Your task to perform on an android device: change the clock style Image 0: 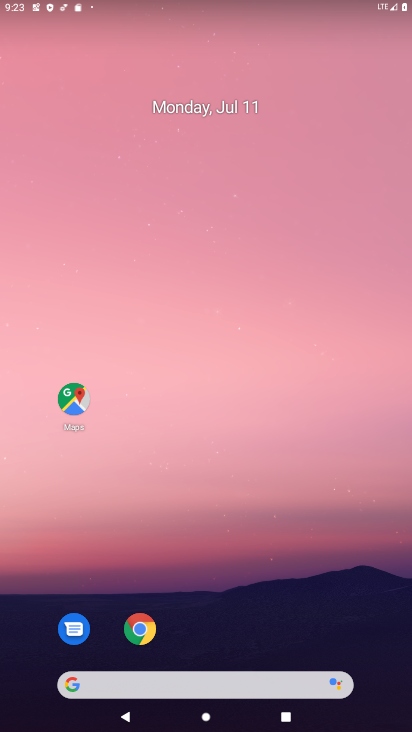
Step 0: click (121, 672)
Your task to perform on an android device: change the clock style Image 1: 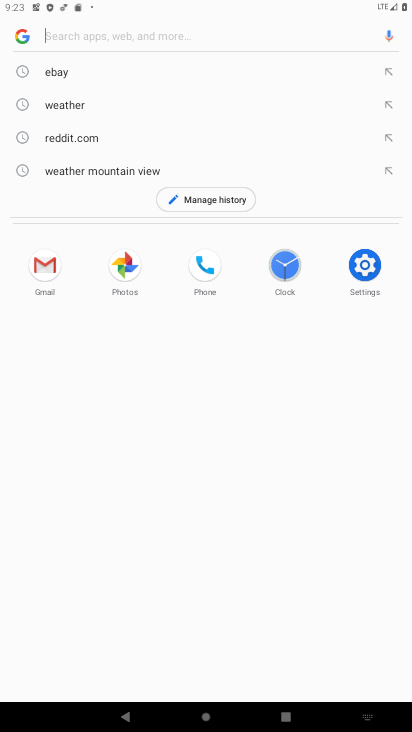
Step 1: press home button
Your task to perform on an android device: change the clock style Image 2: 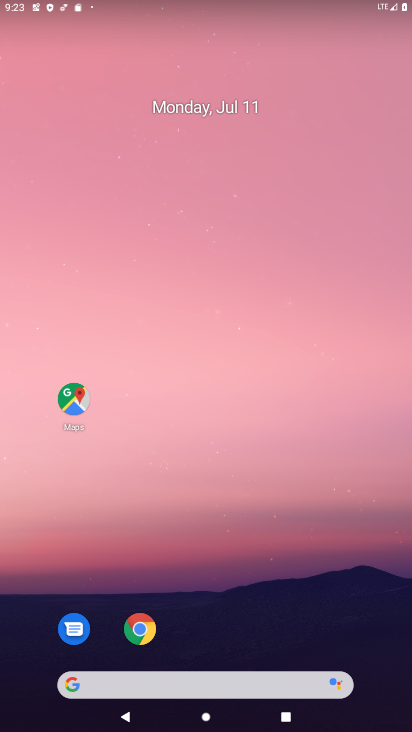
Step 2: drag from (5, 728) to (289, 83)
Your task to perform on an android device: change the clock style Image 3: 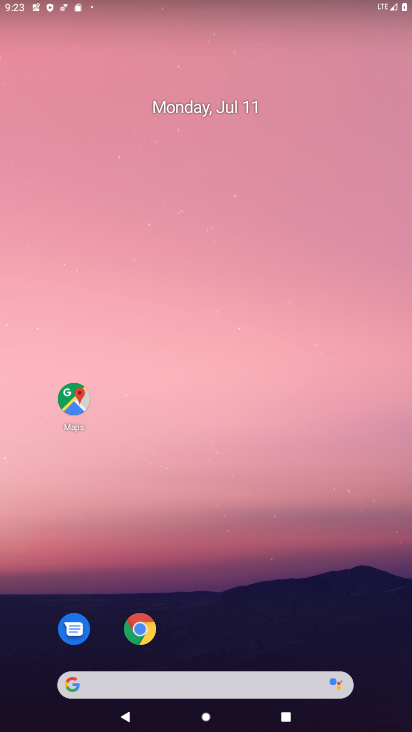
Step 3: drag from (28, 701) to (200, 15)
Your task to perform on an android device: change the clock style Image 4: 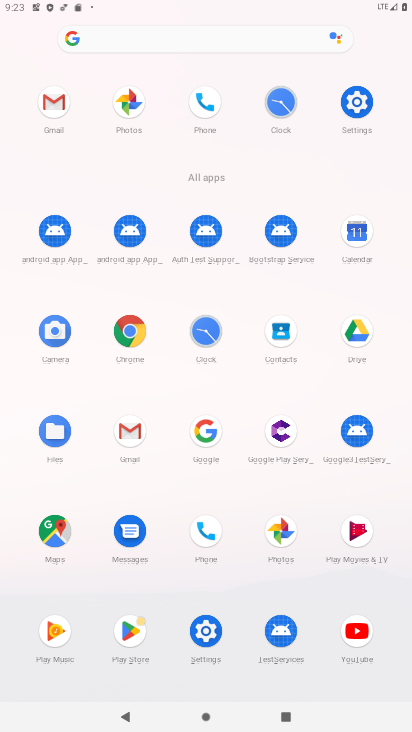
Step 4: click (203, 341)
Your task to perform on an android device: change the clock style Image 5: 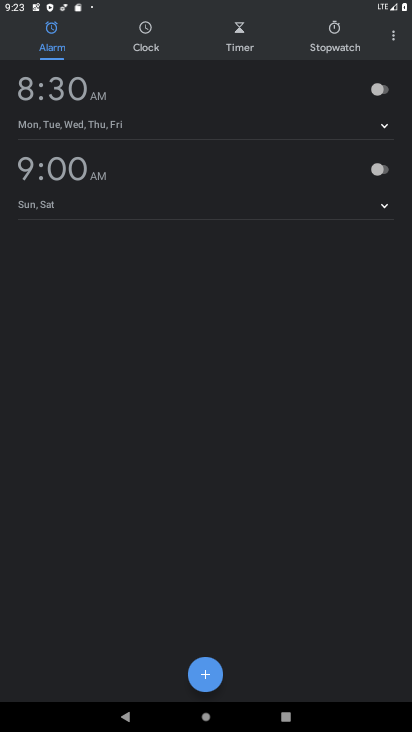
Step 5: click (140, 41)
Your task to perform on an android device: change the clock style Image 6: 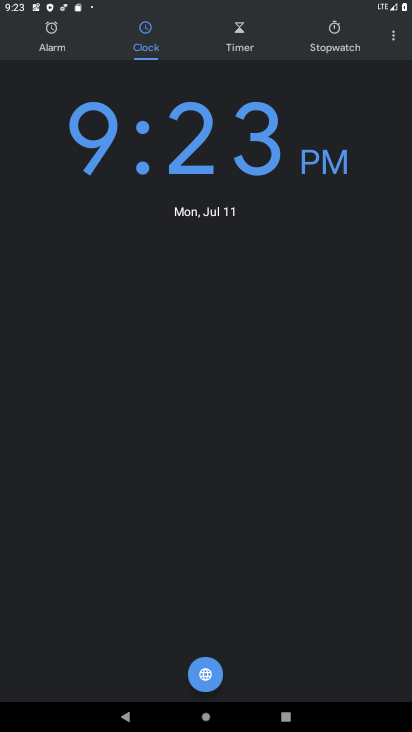
Step 6: click (391, 37)
Your task to perform on an android device: change the clock style Image 7: 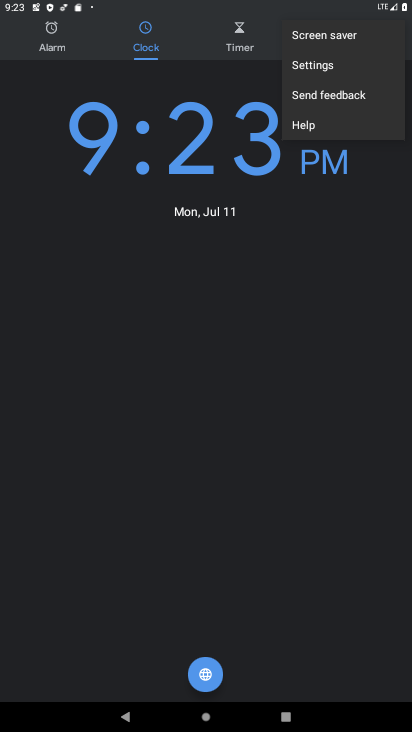
Step 7: click (302, 62)
Your task to perform on an android device: change the clock style Image 8: 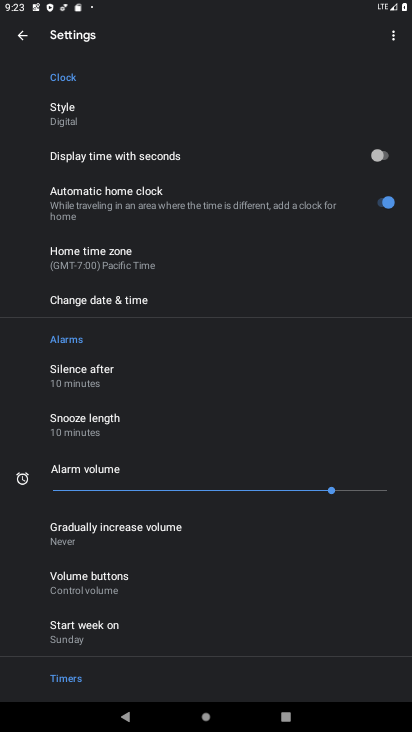
Step 8: click (100, 117)
Your task to perform on an android device: change the clock style Image 9: 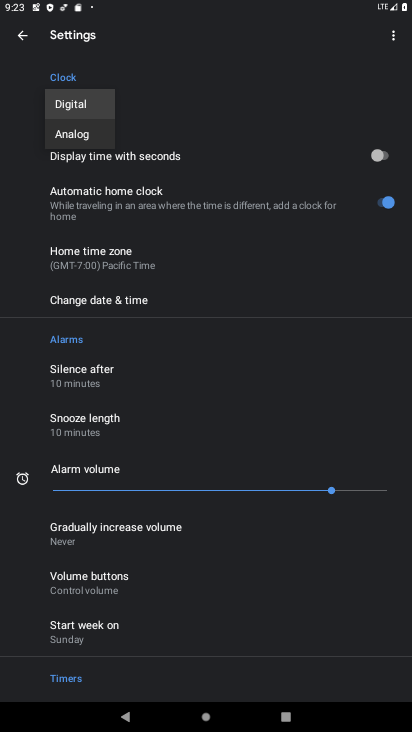
Step 9: click (82, 126)
Your task to perform on an android device: change the clock style Image 10: 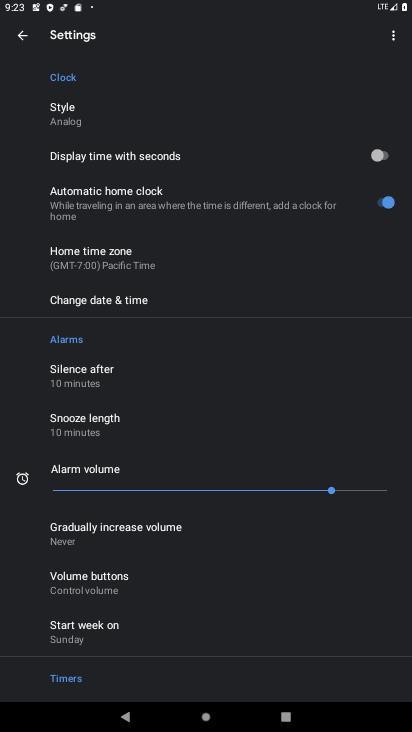
Step 10: task complete